Your task to perform on an android device: check the backup settings in the google photos Image 0: 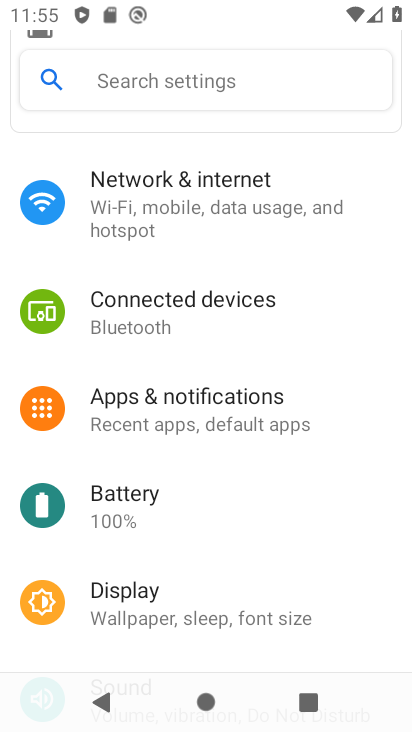
Step 0: press home button
Your task to perform on an android device: check the backup settings in the google photos Image 1: 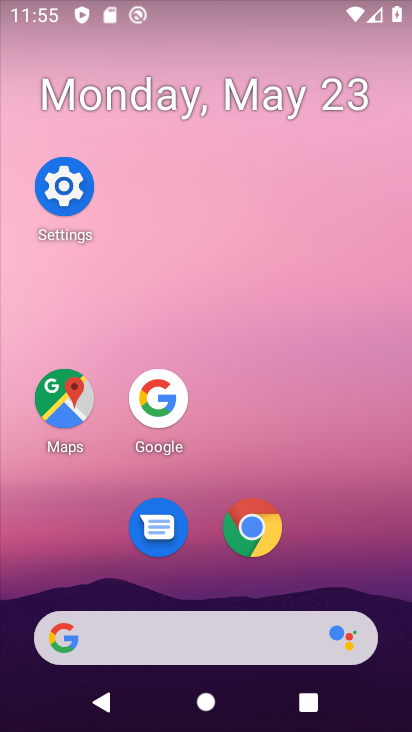
Step 1: drag from (360, 579) to (368, 123)
Your task to perform on an android device: check the backup settings in the google photos Image 2: 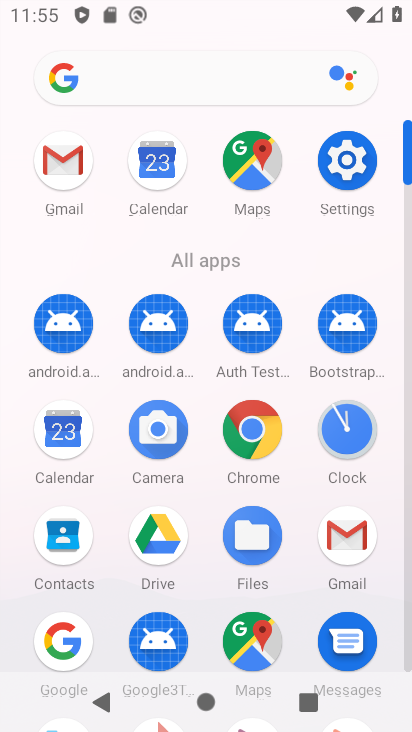
Step 2: drag from (198, 602) to (231, 273)
Your task to perform on an android device: check the backup settings in the google photos Image 3: 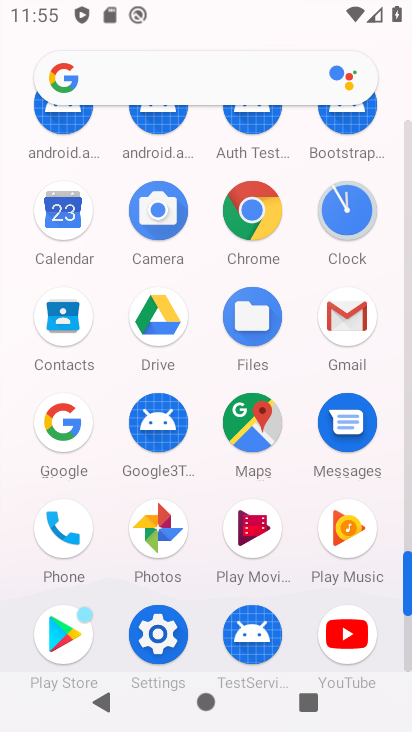
Step 3: drag from (163, 549) to (199, 355)
Your task to perform on an android device: check the backup settings in the google photos Image 4: 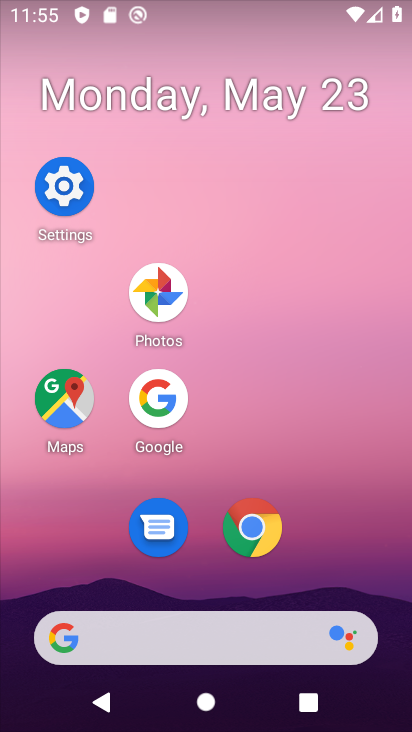
Step 4: click (167, 291)
Your task to perform on an android device: check the backup settings in the google photos Image 5: 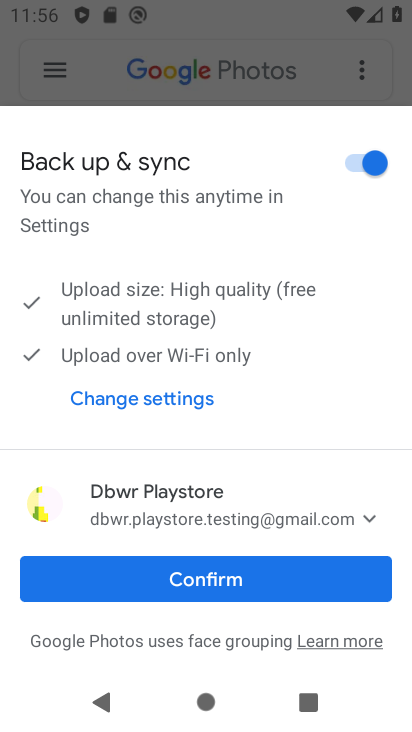
Step 5: click (259, 578)
Your task to perform on an android device: check the backup settings in the google photos Image 6: 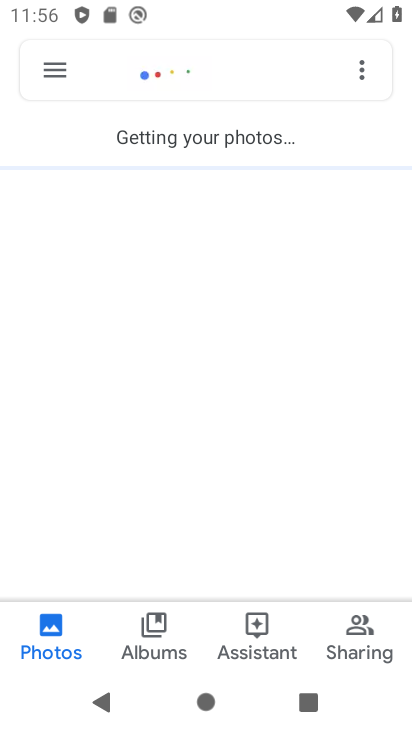
Step 6: click (51, 104)
Your task to perform on an android device: check the backup settings in the google photos Image 7: 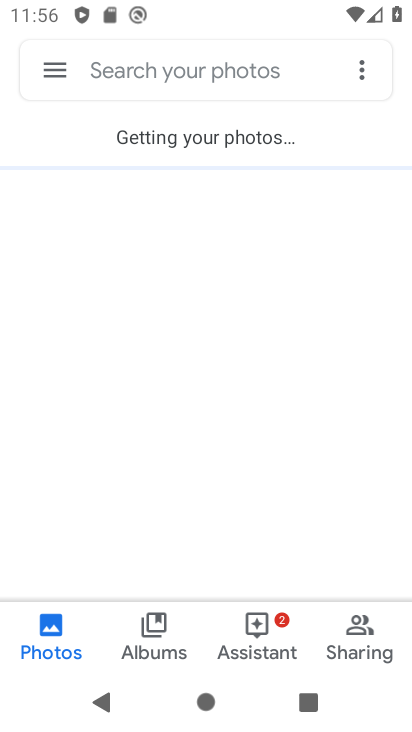
Step 7: click (48, 73)
Your task to perform on an android device: check the backup settings in the google photos Image 8: 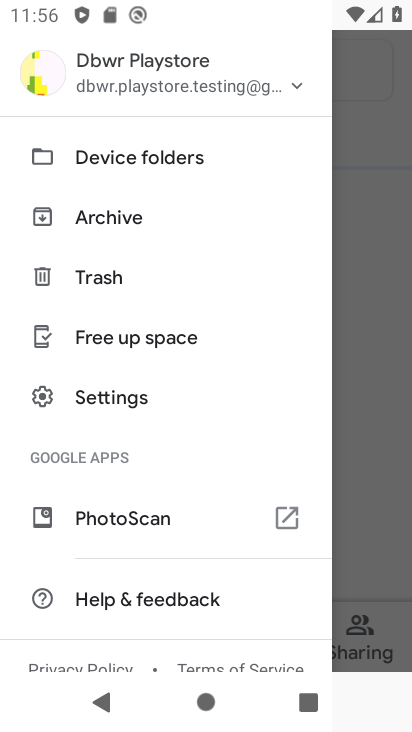
Step 8: drag from (146, 450) to (173, 172)
Your task to perform on an android device: check the backup settings in the google photos Image 9: 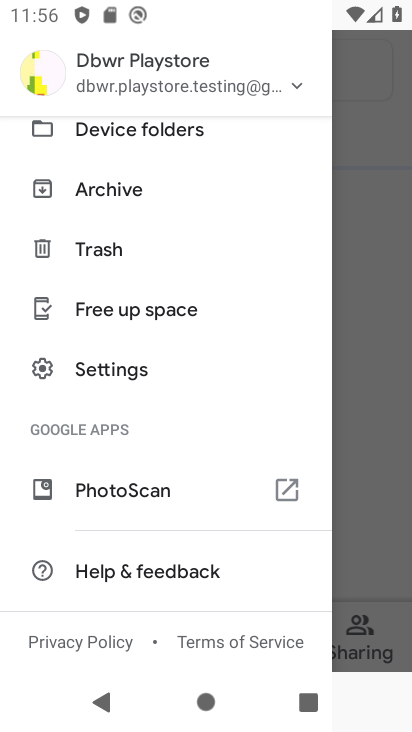
Step 9: drag from (181, 280) to (171, 466)
Your task to perform on an android device: check the backup settings in the google photos Image 10: 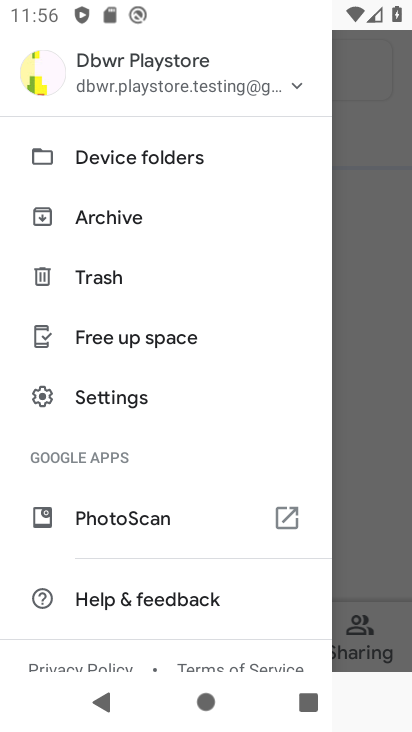
Step 10: click (149, 403)
Your task to perform on an android device: check the backup settings in the google photos Image 11: 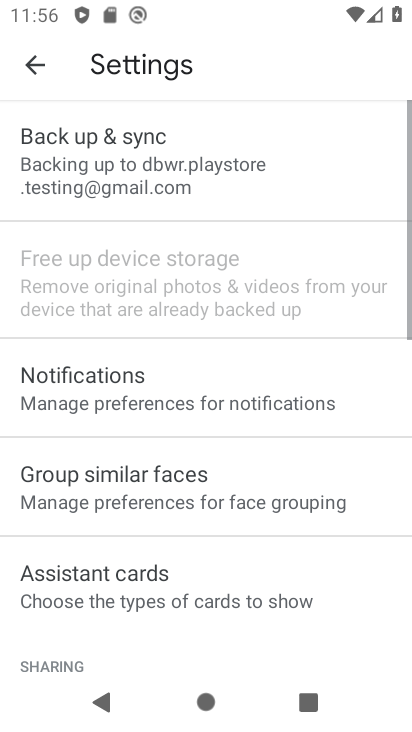
Step 11: click (169, 146)
Your task to perform on an android device: check the backup settings in the google photos Image 12: 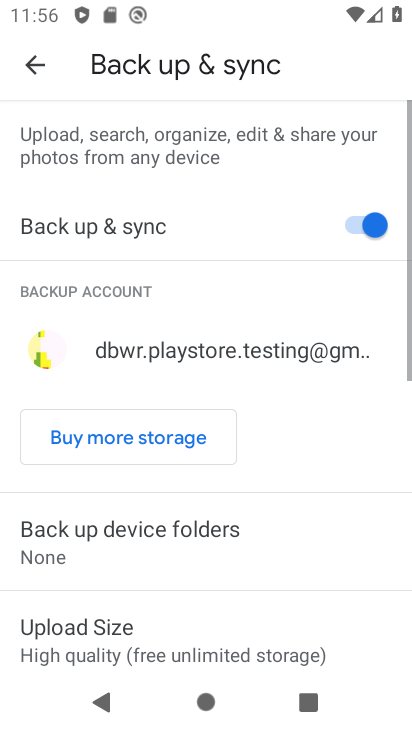
Step 12: task complete